Your task to perform on an android device: Open the map Image 0: 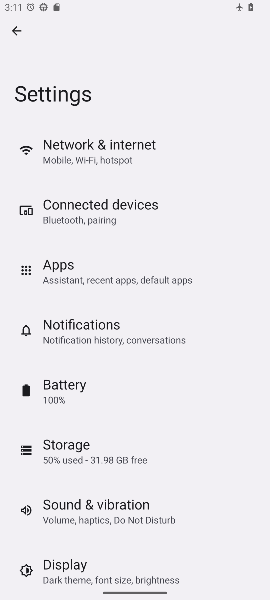
Step 0: press home button
Your task to perform on an android device: Open the map Image 1: 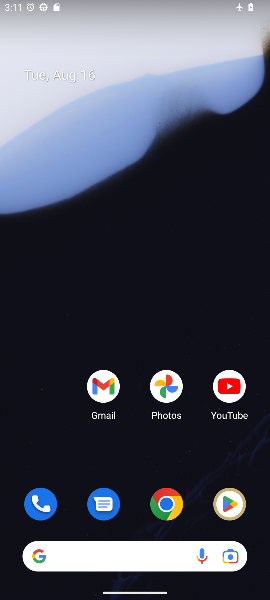
Step 1: drag from (138, 476) to (89, 101)
Your task to perform on an android device: Open the map Image 2: 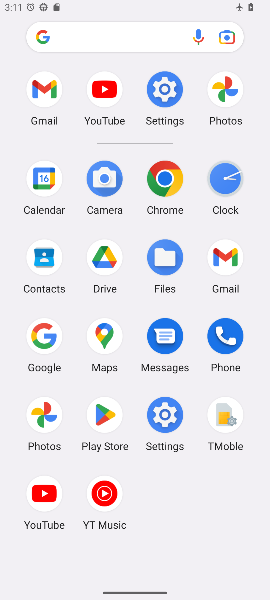
Step 2: click (102, 331)
Your task to perform on an android device: Open the map Image 3: 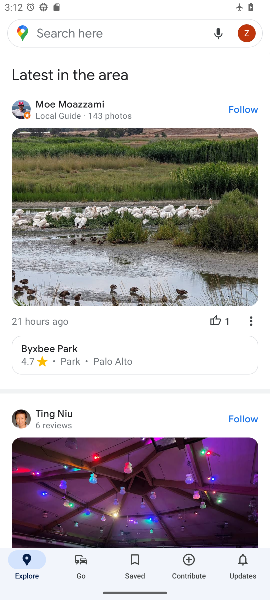
Step 3: task complete